Your task to perform on an android device: turn off priority inbox in the gmail app Image 0: 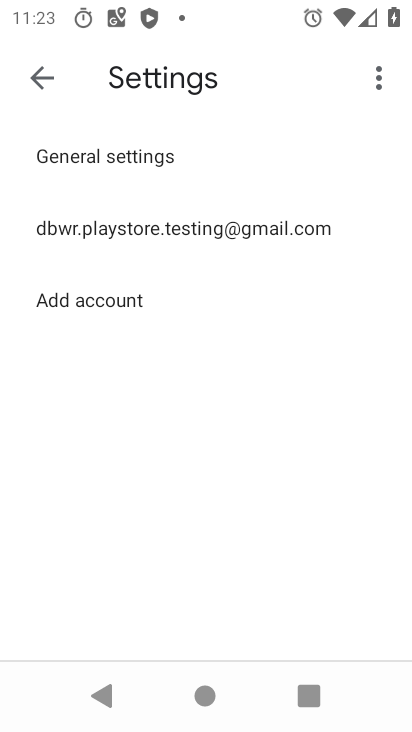
Step 0: press home button
Your task to perform on an android device: turn off priority inbox in the gmail app Image 1: 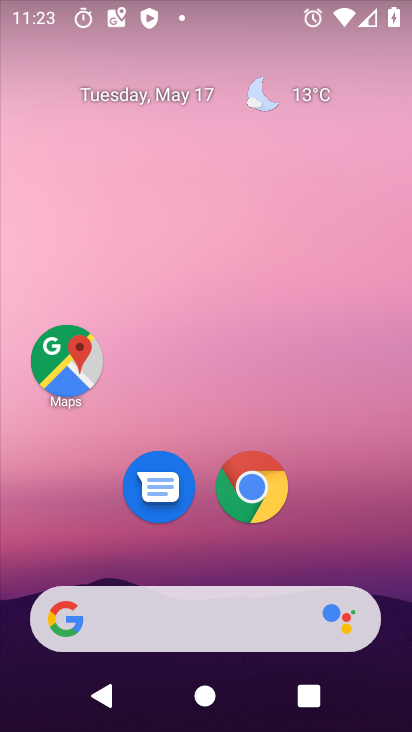
Step 1: drag from (220, 679) to (213, 50)
Your task to perform on an android device: turn off priority inbox in the gmail app Image 2: 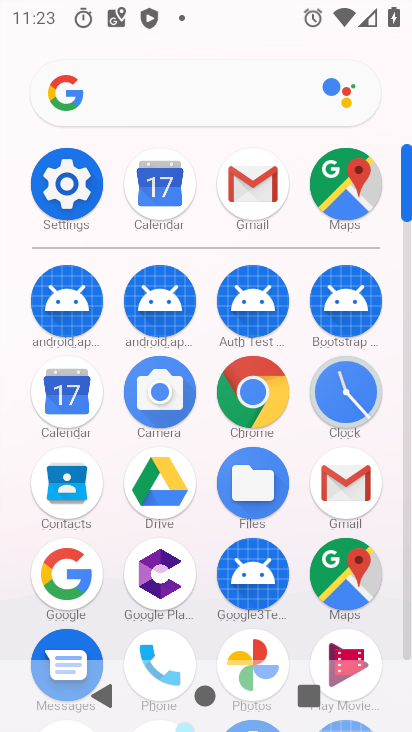
Step 2: click (344, 478)
Your task to perform on an android device: turn off priority inbox in the gmail app Image 3: 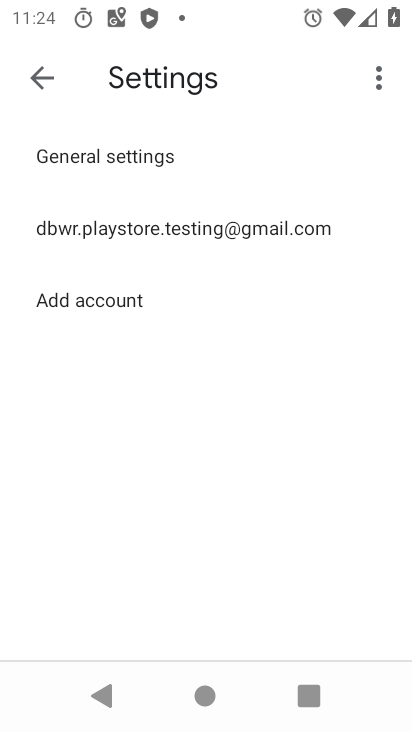
Step 3: click (97, 225)
Your task to perform on an android device: turn off priority inbox in the gmail app Image 4: 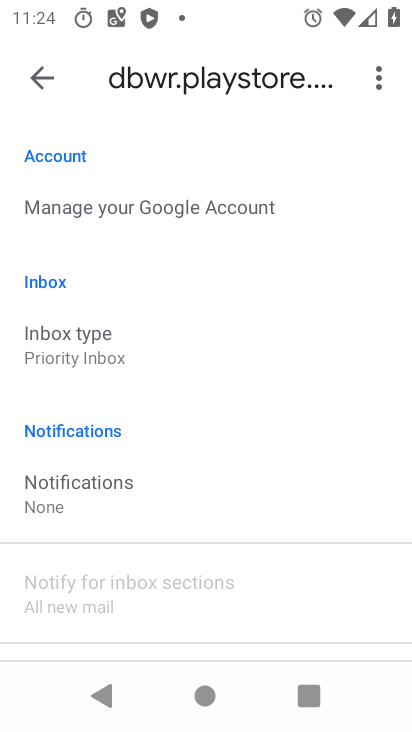
Step 4: click (70, 344)
Your task to perform on an android device: turn off priority inbox in the gmail app Image 5: 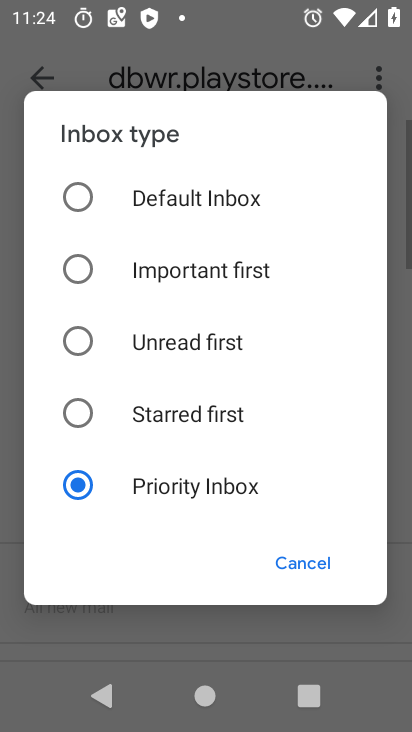
Step 5: click (70, 185)
Your task to perform on an android device: turn off priority inbox in the gmail app Image 6: 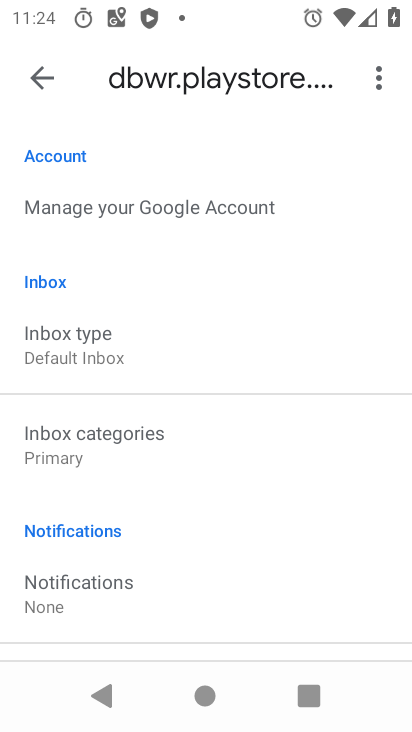
Step 6: task complete